Your task to perform on an android device: Open accessibility settings Image 0: 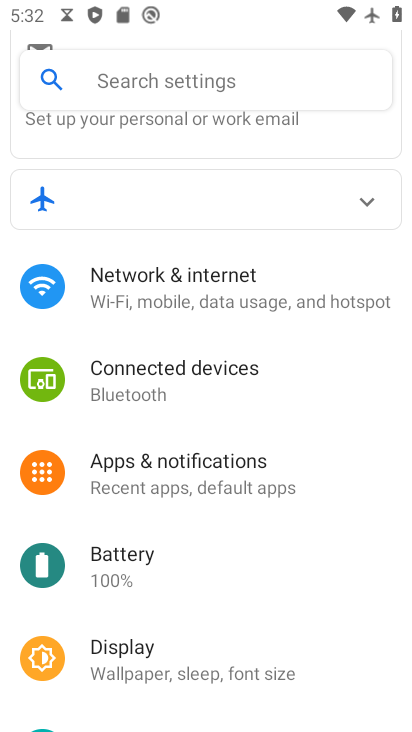
Step 0: drag from (240, 599) to (203, 0)
Your task to perform on an android device: Open accessibility settings Image 1: 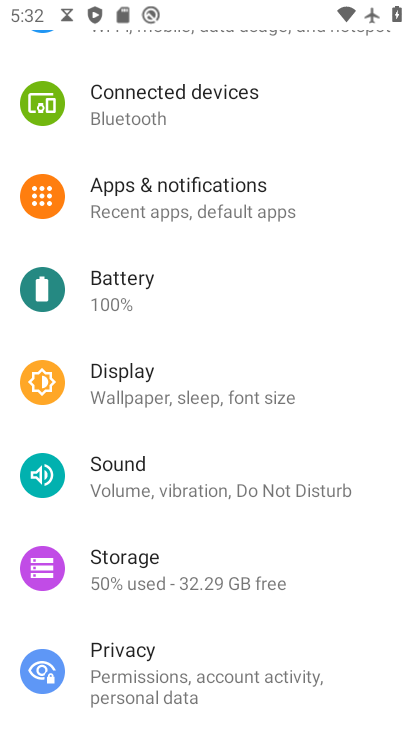
Step 1: drag from (218, 562) to (180, 4)
Your task to perform on an android device: Open accessibility settings Image 2: 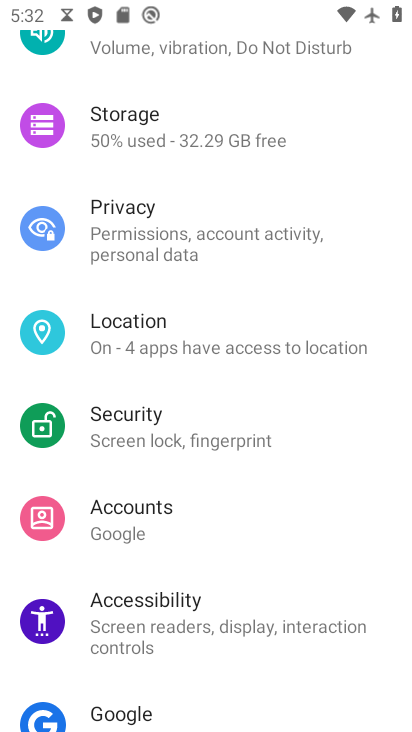
Step 2: click (209, 600)
Your task to perform on an android device: Open accessibility settings Image 3: 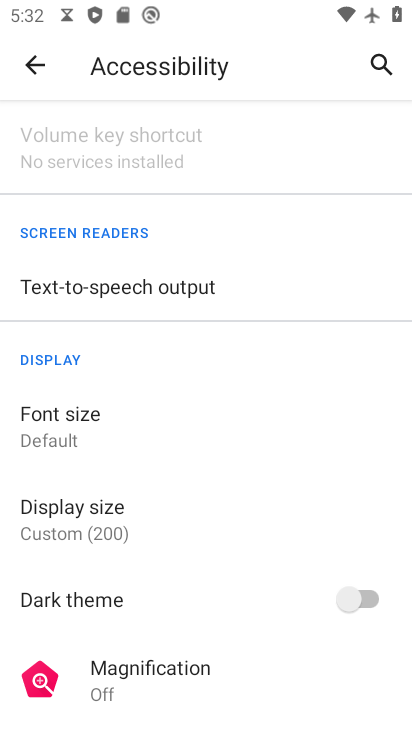
Step 3: task complete